Your task to perform on an android device: Open Chrome and go to settings Image 0: 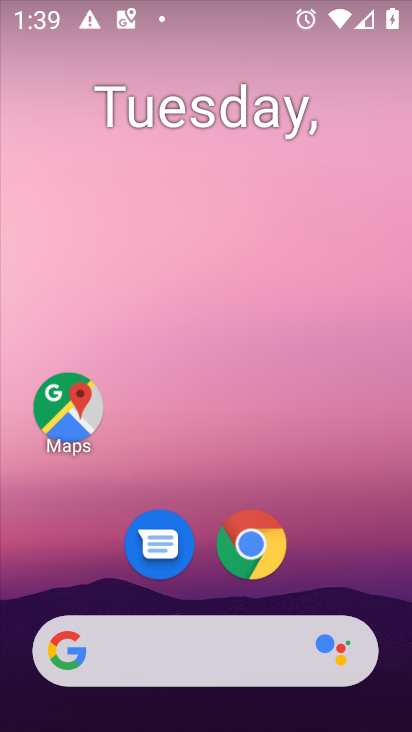
Step 0: drag from (337, 548) to (309, 55)
Your task to perform on an android device: Open Chrome and go to settings Image 1: 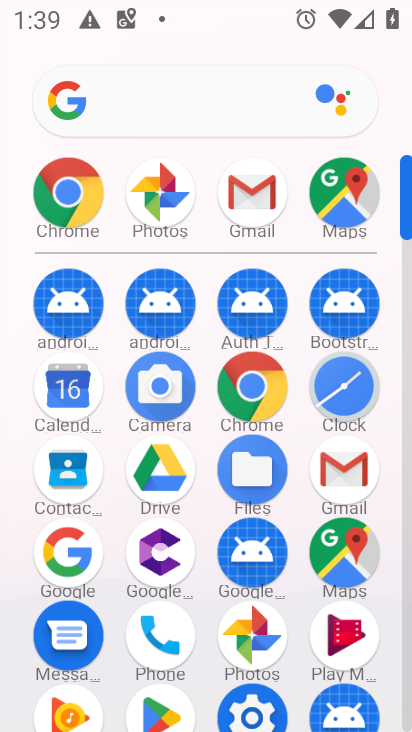
Step 1: click (248, 385)
Your task to perform on an android device: Open Chrome and go to settings Image 2: 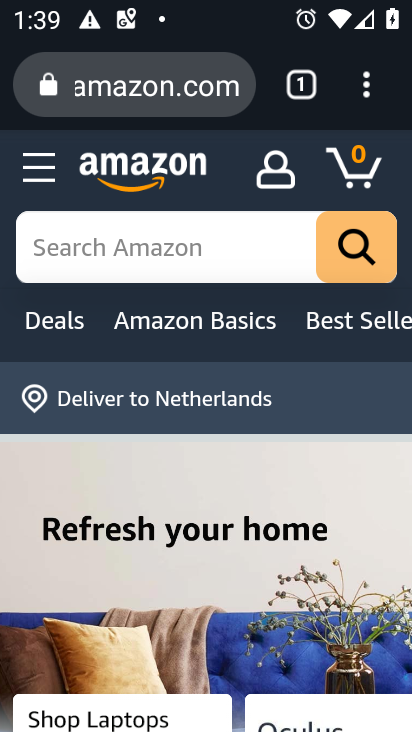
Step 2: task complete